Your task to perform on an android device: turn off airplane mode Image 0: 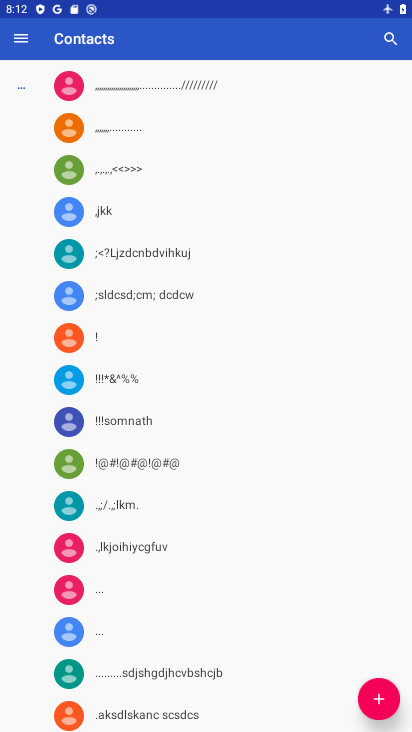
Step 0: press back button
Your task to perform on an android device: turn off airplane mode Image 1: 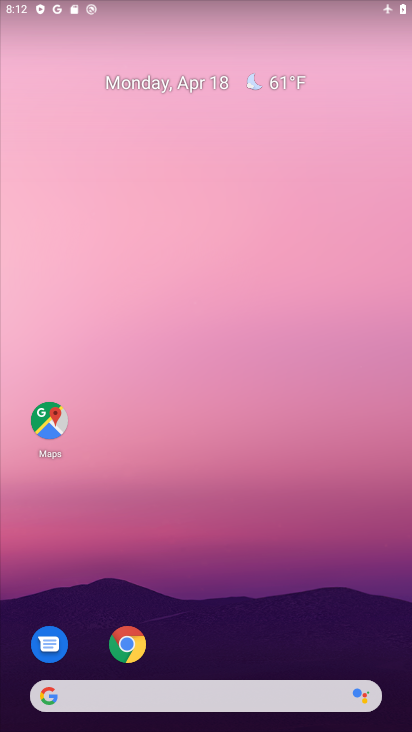
Step 1: drag from (154, 702) to (155, 238)
Your task to perform on an android device: turn off airplane mode Image 2: 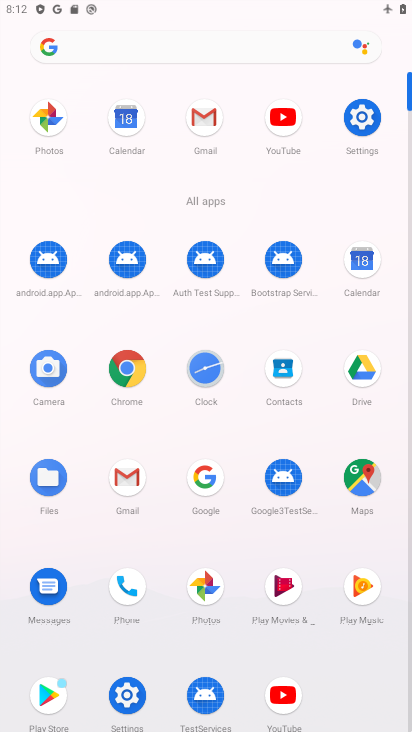
Step 2: click (354, 131)
Your task to perform on an android device: turn off airplane mode Image 3: 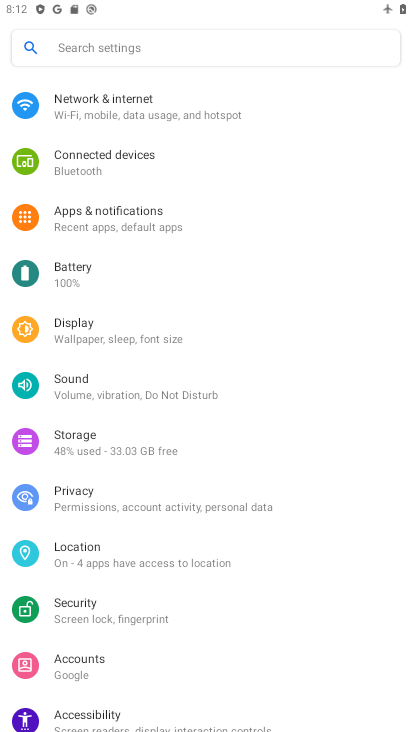
Step 3: click (146, 105)
Your task to perform on an android device: turn off airplane mode Image 4: 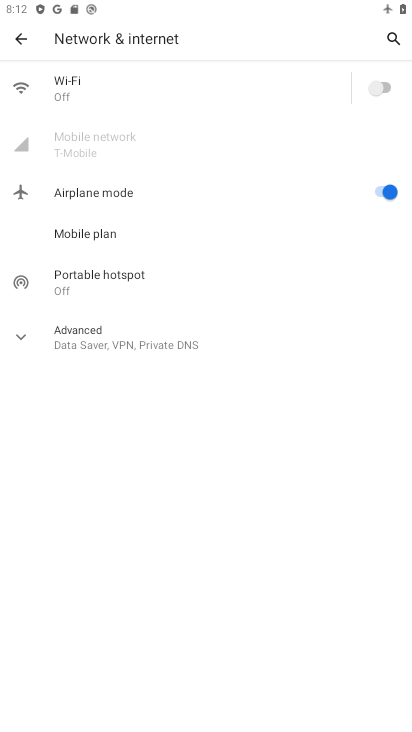
Step 4: click (392, 194)
Your task to perform on an android device: turn off airplane mode Image 5: 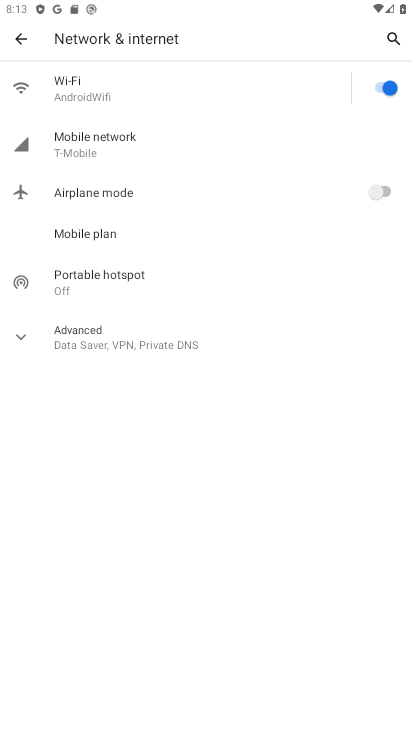
Step 5: task complete